Your task to perform on an android device: turn notification dots on Image 0: 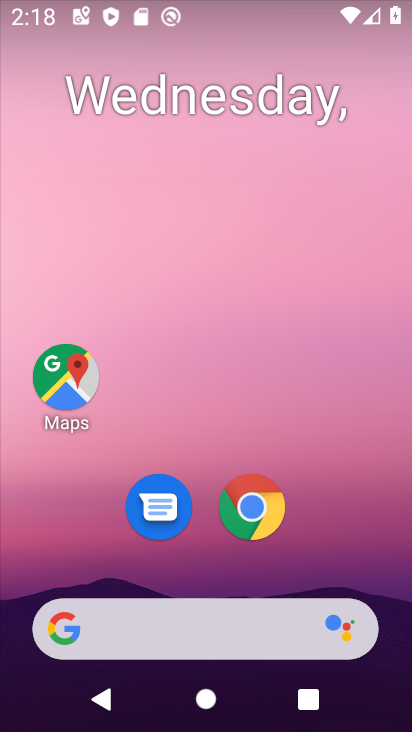
Step 0: drag from (330, 564) to (334, 264)
Your task to perform on an android device: turn notification dots on Image 1: 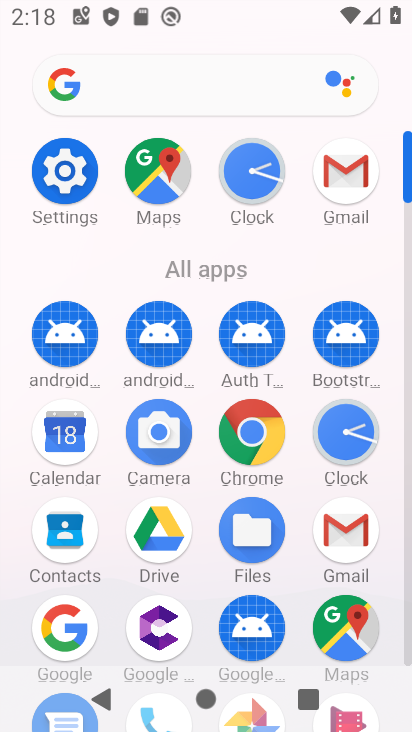
Step 1: click (63, 171)
Your task to perform on an android device: turn notification dots on Image 2: 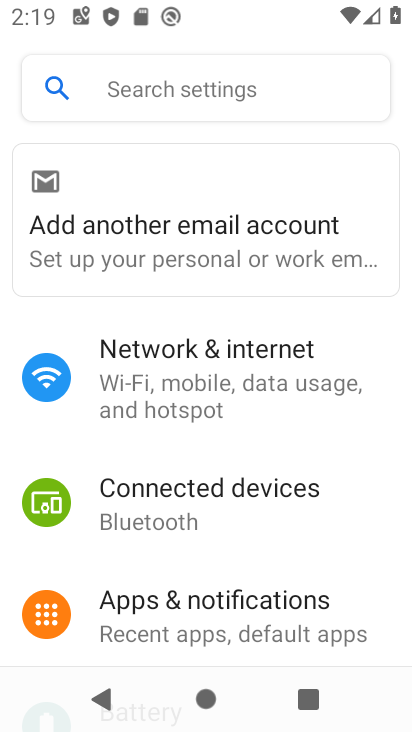
Step 2: click (161, 608)
Your task to perform on an android device: turn notification dots on Image 3: 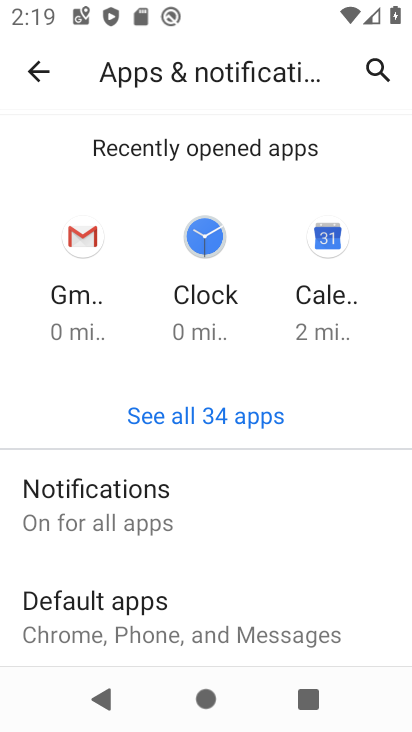
Step 3: drag from (348, 552) to (349, 100)
Your task to perform on an android device: turn notification dots on Image 4: 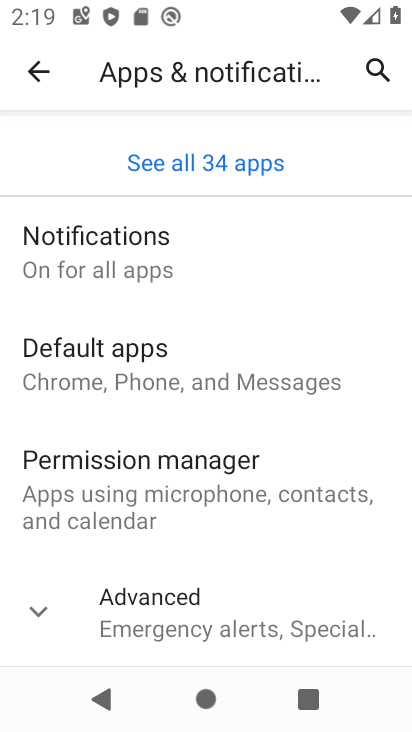
Step 4: click (105, 612)
Your task to perform on an android device: turn notification dots on Image 5: 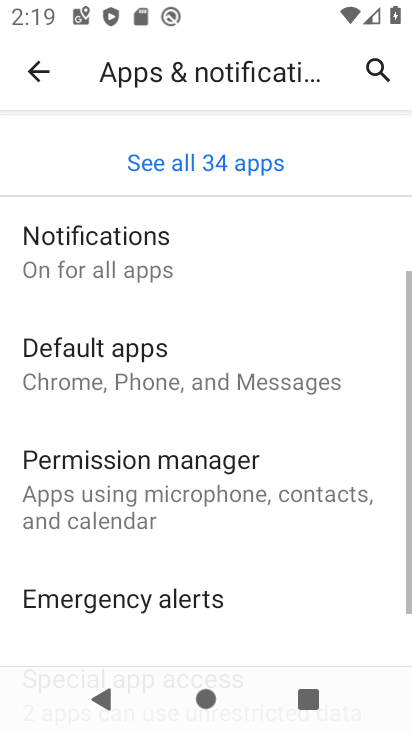
Step 5: drag from (216, 606) to (250, 136)
Your task to perform on an android device: turn notification dots on Image 6: 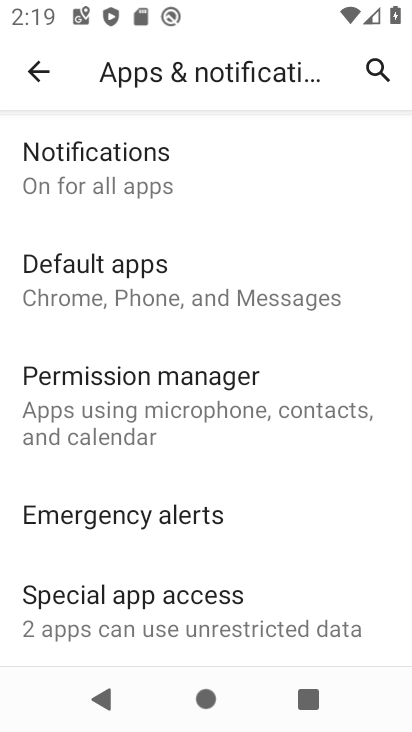
Step 6: click (132, 160)
Your task to perform on an android device: turn notification dots on Image 7: 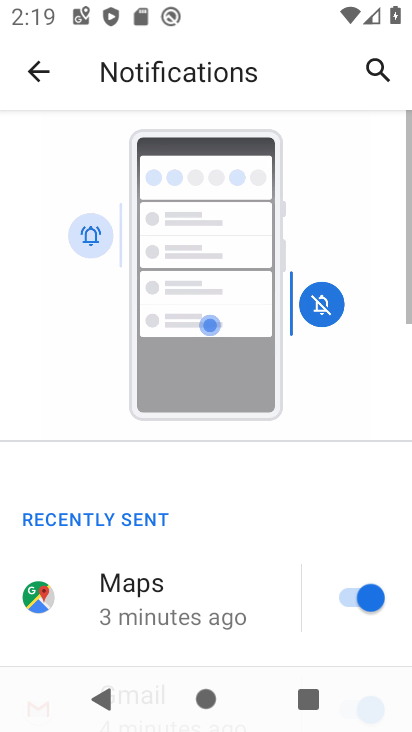
Step 7: drag from (217, 571) to (292, 167)
Your task to perform on an android device: turn notification dots on Image 8: 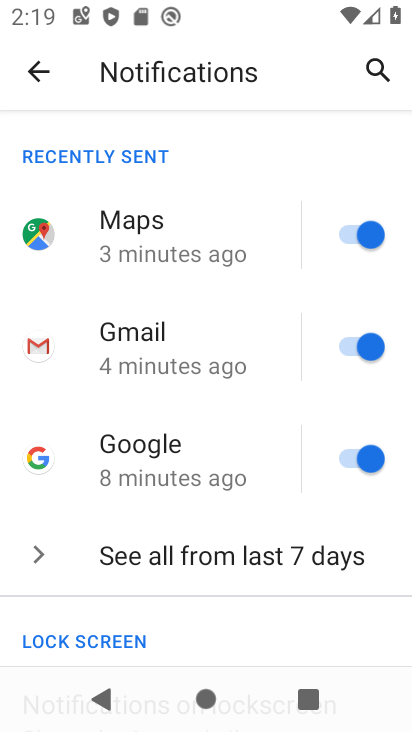
Step 8: drag from (207, 588) to (257, 191)
Your task to perform on an android device: turn notification dots on Image 9: 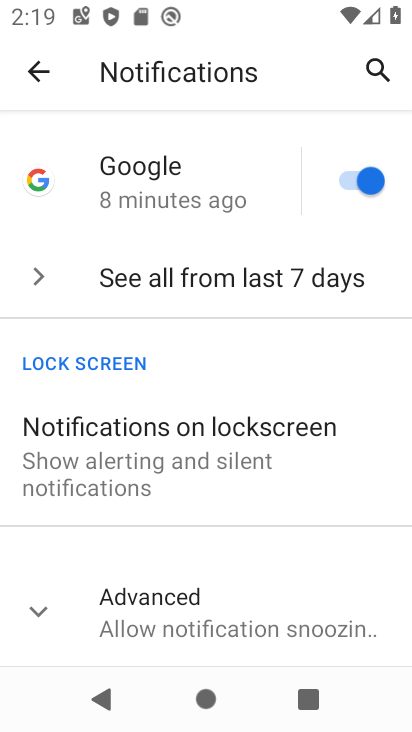
Step 9: click (188, 629)
Your task to perform on an android device: turn notification dots on Image 10: 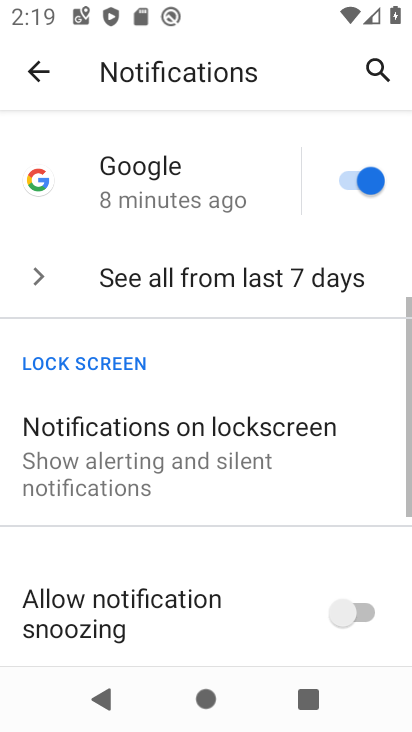
Step 10: task complete